Your task to perform on an android device: Open location settings Image 0: 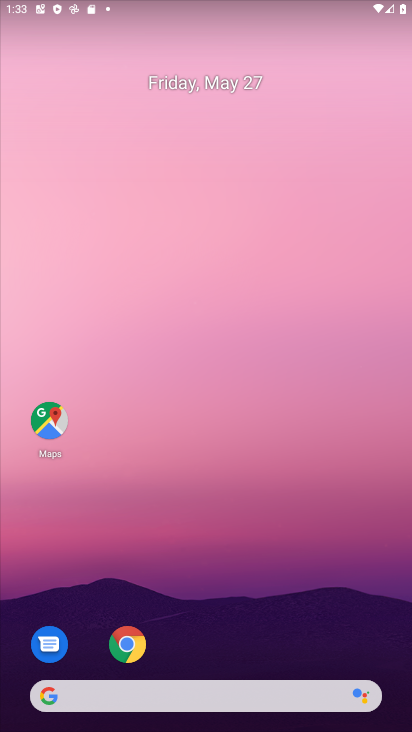
Step 0: drag from (326, 658) to (226, 25)
Your task to perform on an android device: Open location settings Image 1: 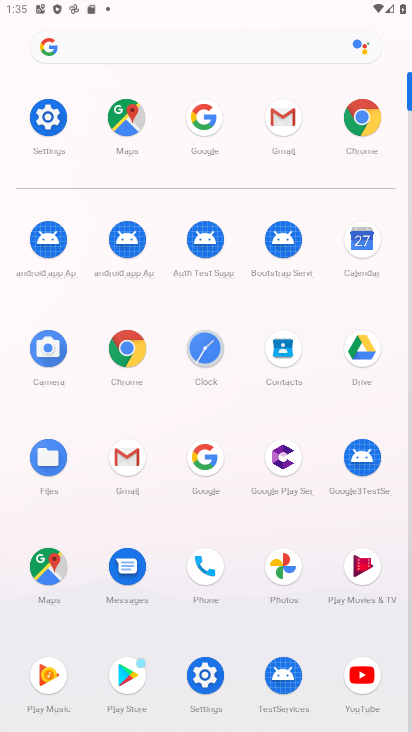
Step 1: click (192, 673)
Your task to perform on an android device: Open location settings Image 2: 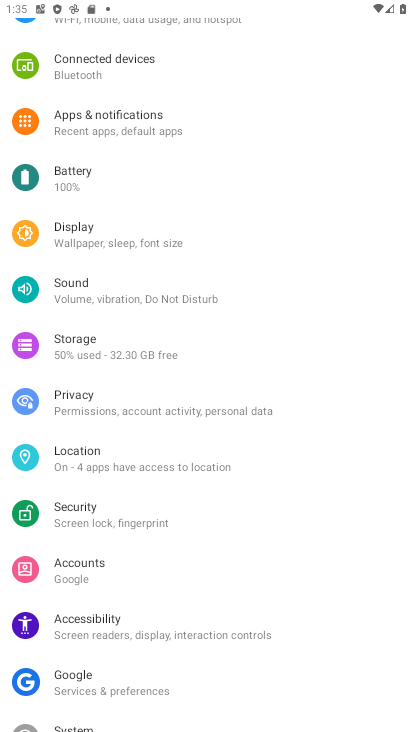
Step 2: click (92, 471)
Your task to perform on an android device: Open location settings Image 3: 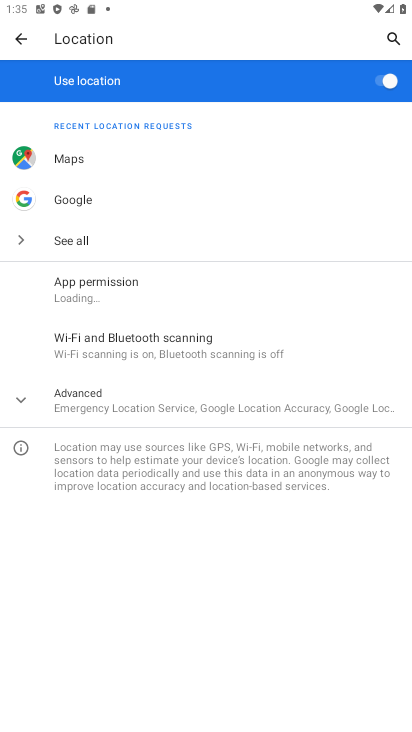
Step 3: task complete